Your task to perform on an android device: turn off notifications settings in the gmail app Image 0: 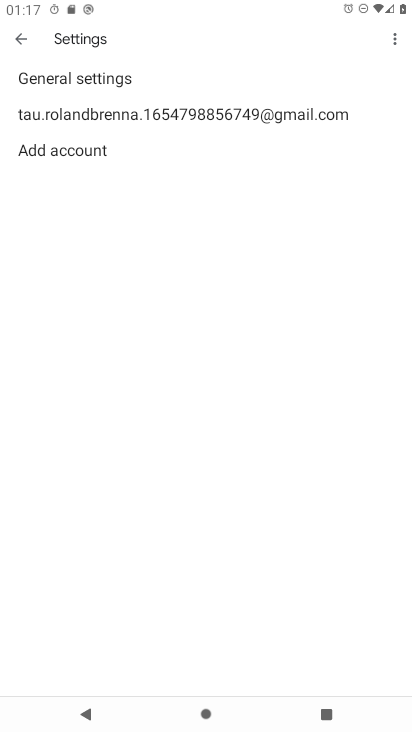
Step 0: press home button
Your task to perform on an android device: turn off notifications settings in the gmail app Image 1: 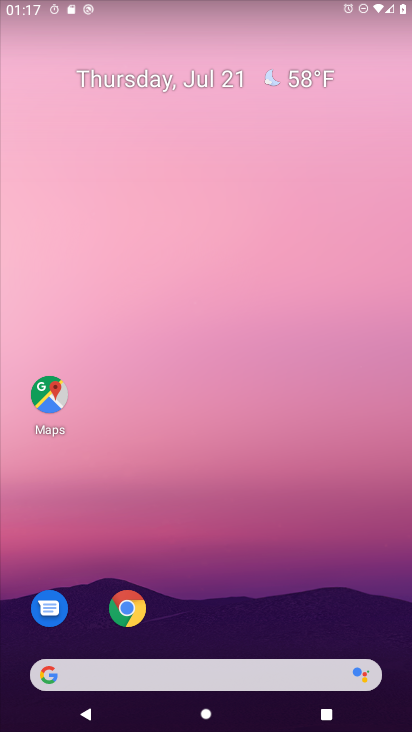
Step 1: drag from (266, 633) to (244, 40)
Your task to perform on an android device: turn off notifications settings in the gmail app Image 2: 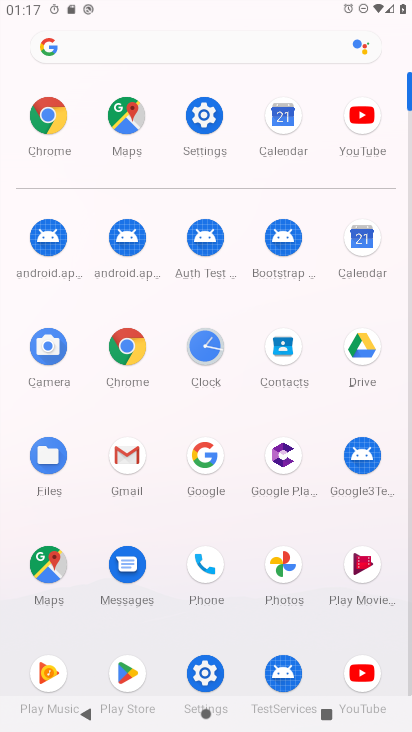
Step 2: click (122, 458)
Your task to perform on an android device: turn off notifications settings in the gmail app Image 3: 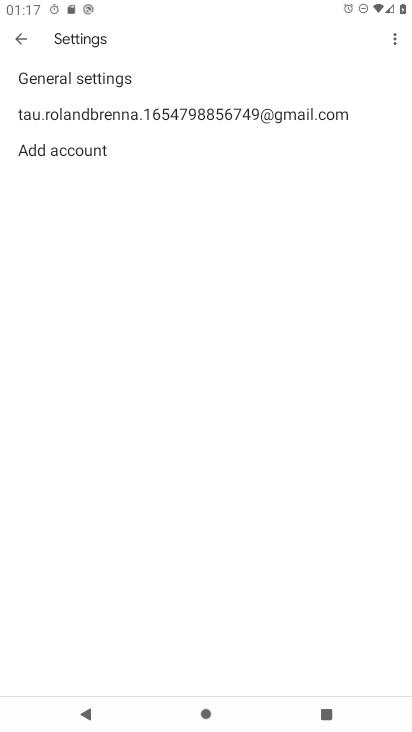
Step 3: click (124, 112)
Your task to perform on an android device: turn off notifications settings in the gmail app Image 4: 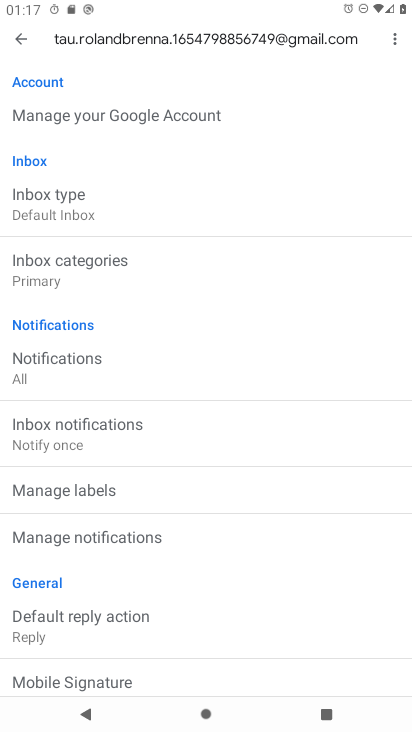
Step 4: click (75, 533)
Your task to perform on an android device: turn off notifications settings in the gmail app Image 5: 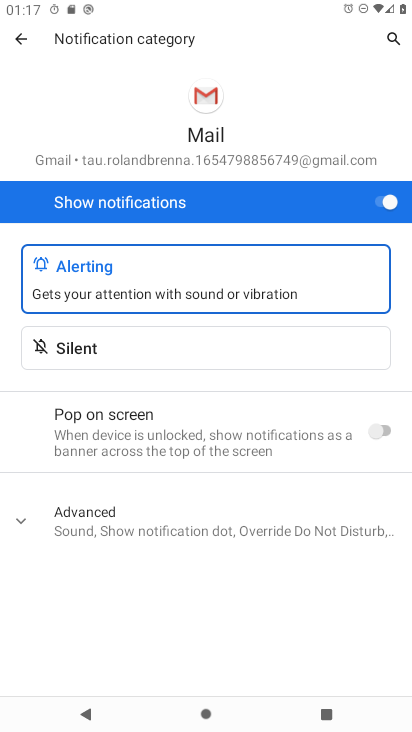
Step 5: task complete